Your task to perform on an android device: turn on the 24-hour format for clock Image 0: 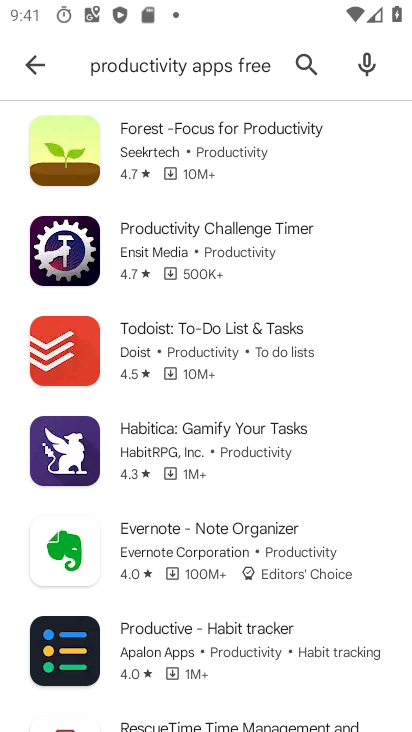
Step 0: press home button
Your task to perform on an android device: turn on the 24-hour format for clock Image 1: 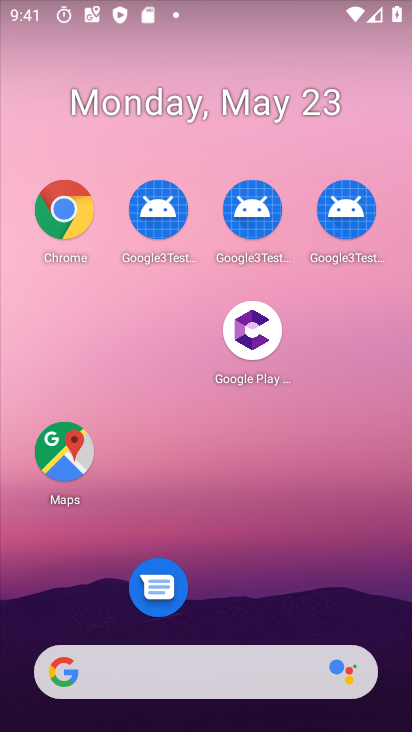
Step 1: drag from (221, 622) to (166, 4)
Your task to perform on an android device: turn on the 24-hour format for clock Image 2: 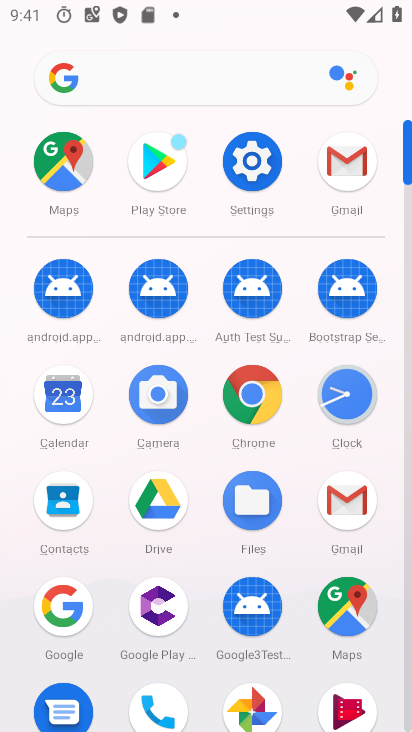
Step 2: click (241, 167)
Your task to perform on an android device: turn on the 24-hour format for clock Image 3: 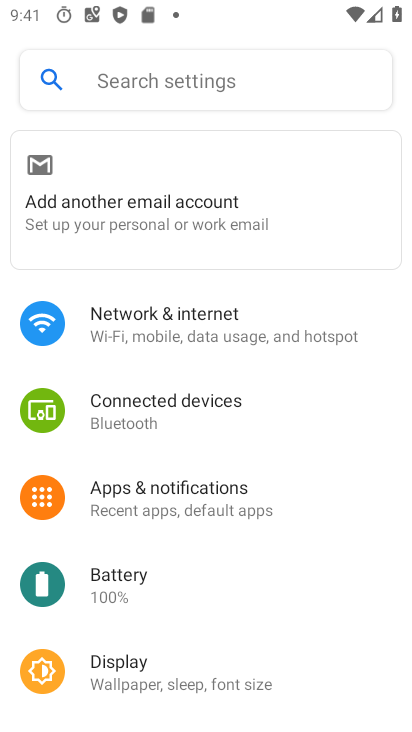
Step 3: drag from (220, 662) to (97, 37)
Your task to perform on an android device: turn on the 24-hour format for clock Image 4: 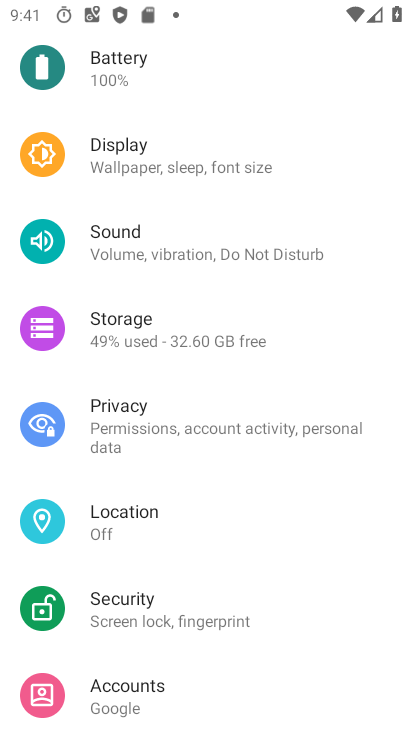
Step 4: press home button
Your task to perform on an android device: turn on the 24-hour format for clock Image 5: 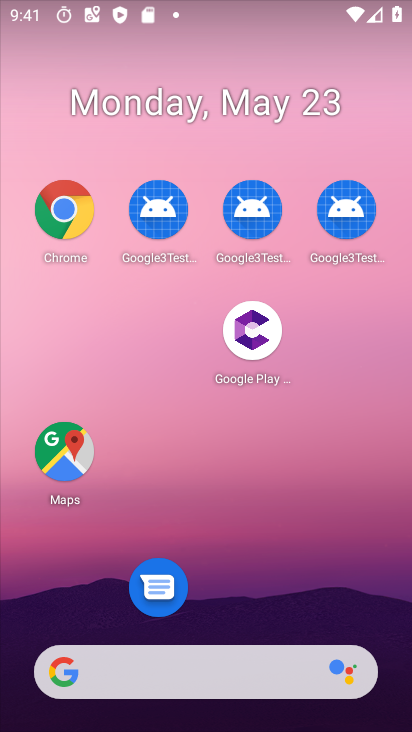
Step 5: drag from (290, 582) to (198, 8)
Your task to perform on an android device: turn on the 24-hour format for clock Image 6: 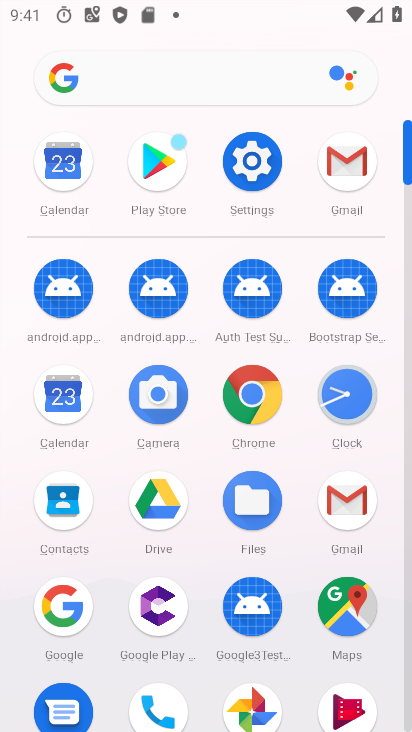
Step 6: click (356, 401)
Your task to perform on an android device: turn on the 24-hour format for clock Image 7: 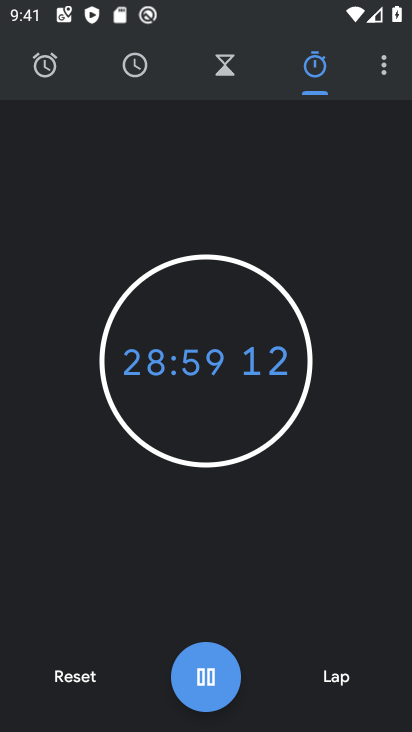
Step 7: click (377, 79)
Your task to perform on an android device: turn on the 24-hour format for clock Image 8: 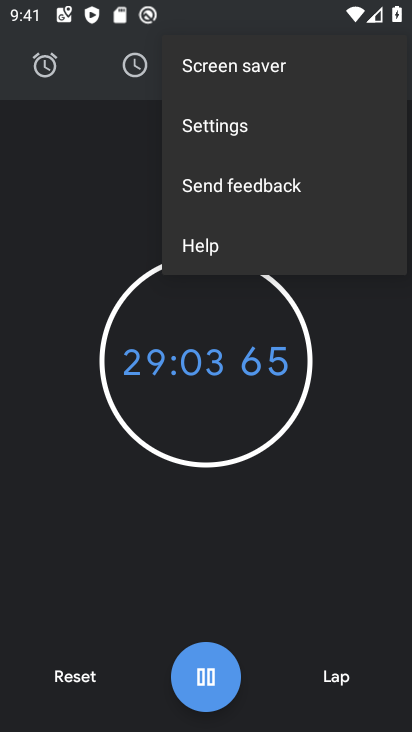
Step 8: click (218, 117)
Your task to perform on an android device: turn on the 24-hour format for clock Image 9: 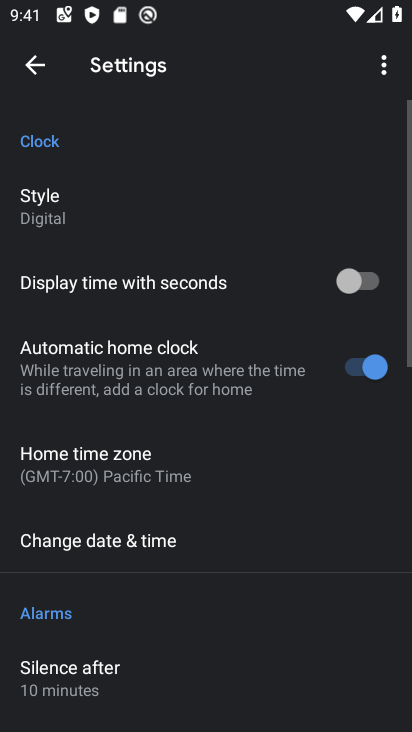
Step 9: drag from (202, 627) to (145, 119)
Your task to perform on an android device: turn on the 24-hour format for clock Image 10: 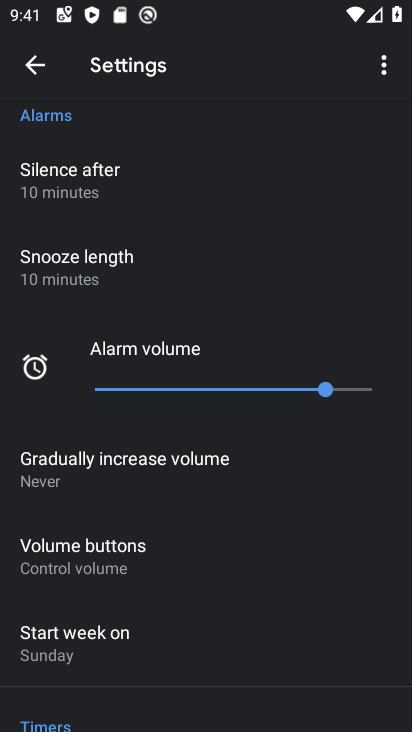
Step 10: drag from (116, 684) to (115, 197)
Your task to perform on an android device: turn on the 24-hour format for clock Image 11: 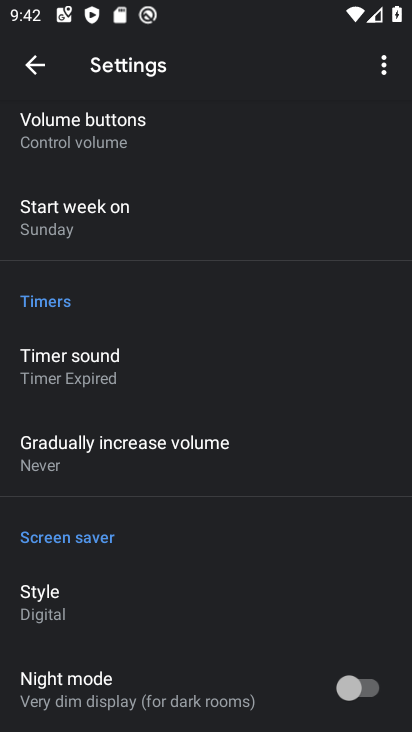
Step 11: drag from (129, 653) to (143, 721)
Your task to perform on an android device: turn on the 24-hour format for clock Image 12: 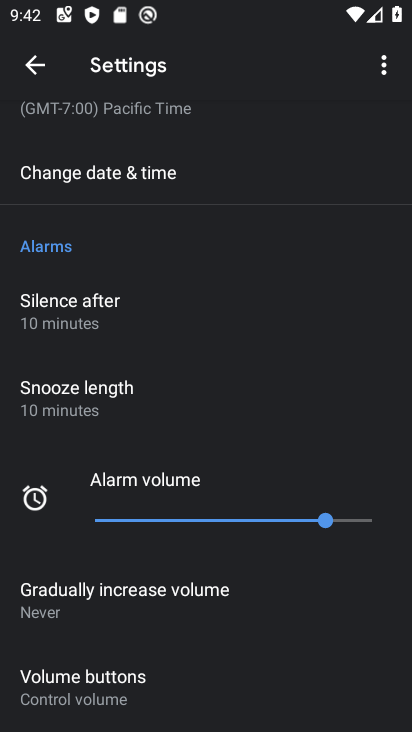
Step 12: drag from (129, 165) to (142, 379)
Your task to perform on an android device: turn on the 24-hour format for clock Image 13: 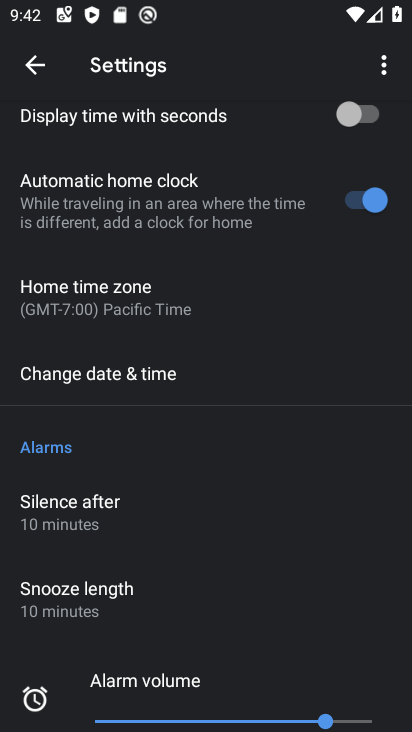
Step 13: click (93, 374)
Your task to perform on an android device: turn on the 24-hour format for clock Image 14: 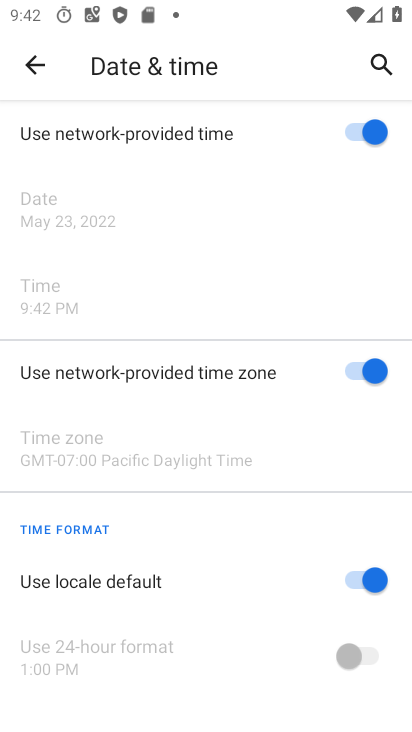
Step 14: click (378, 570)
Your task to perform on an android device: turn on the 24-hour format for clock Image 15: 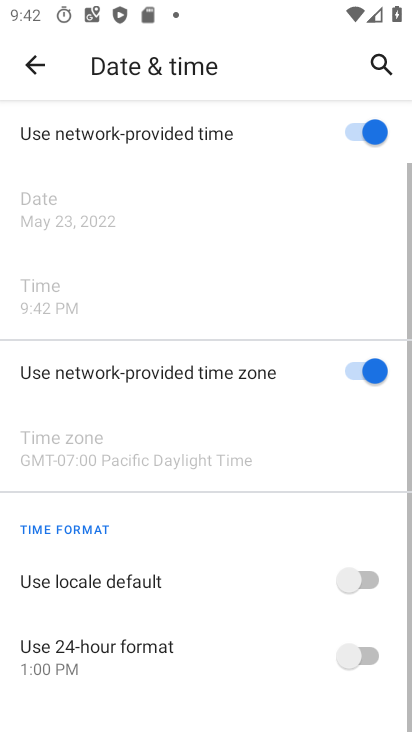
Step 15: click (344, 652)
Your task to perform on an android device: turn on the 24-hour format for clock Image 16: 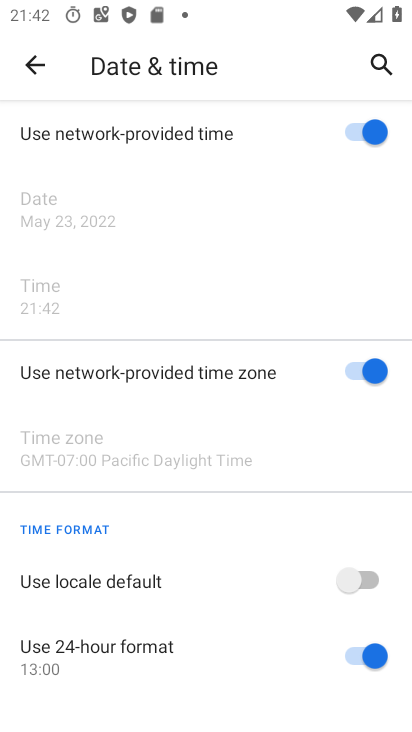
Step 16: task complete